Your task to perform on an android device: check android version Image 0: 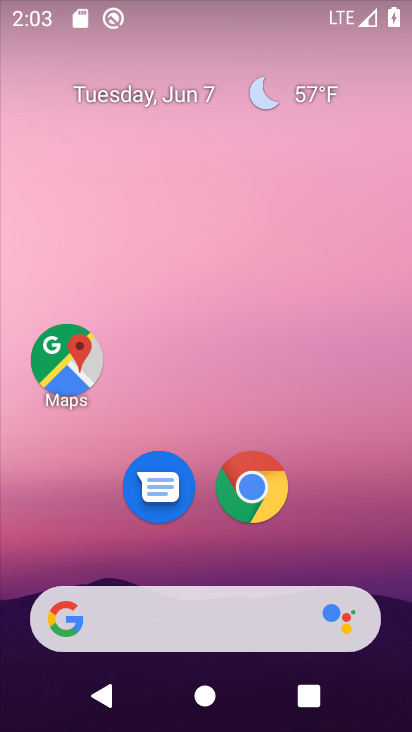
Step 0: drag from (196, 578) to (205, 0)
Your task to perform on an android device: check android version Image 1: 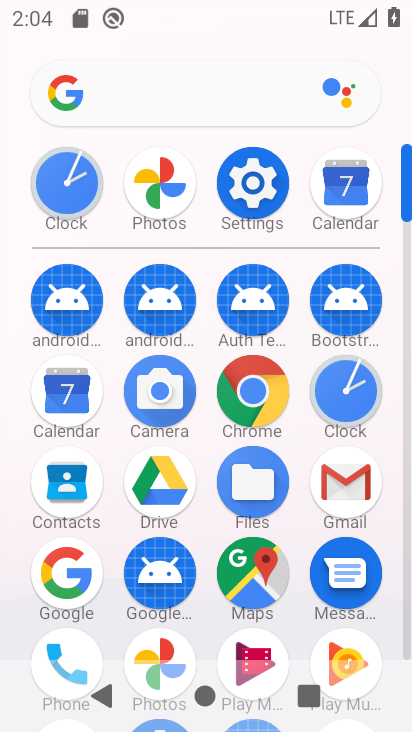
Step 1: click (246, 184)
Your task to perform on an android device: check android version Image 2: 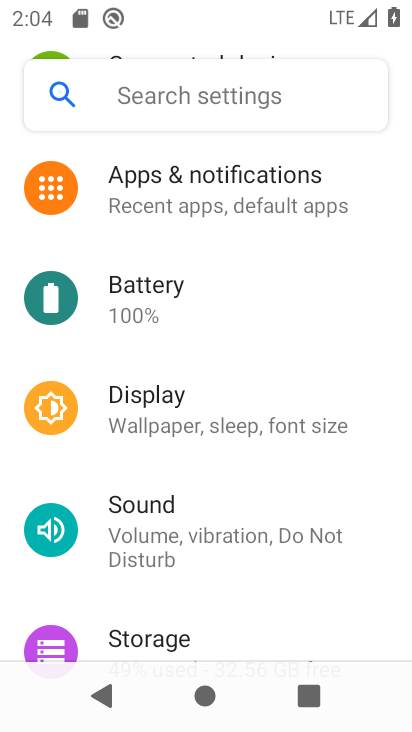
Step 2: drag from (142, 541) to (158, 47)
Your task to perform on an android device: check android version Image 3: 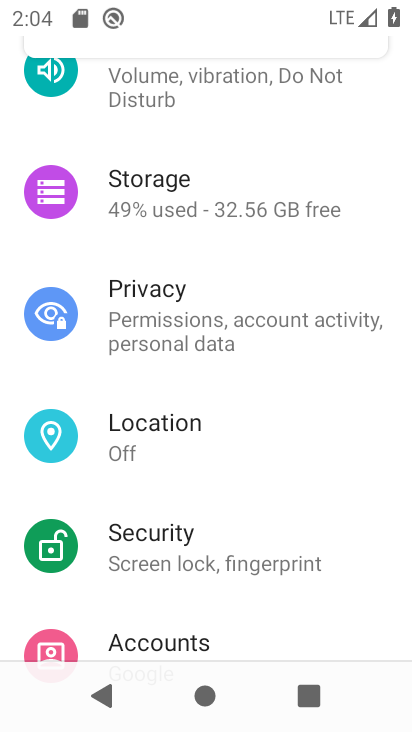
Step 3: drag from (210, 550) to (189, 27)
Your task to perform on an android device: check android version Image 4: 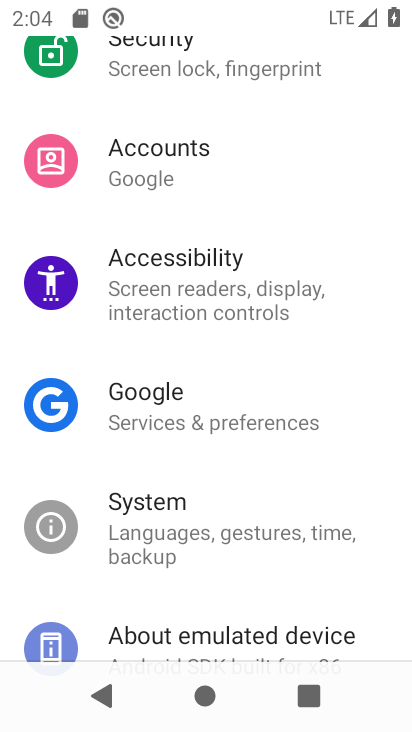
Step 4: click (182, 631)
Your task to perform on an android device: check android version Image 5: 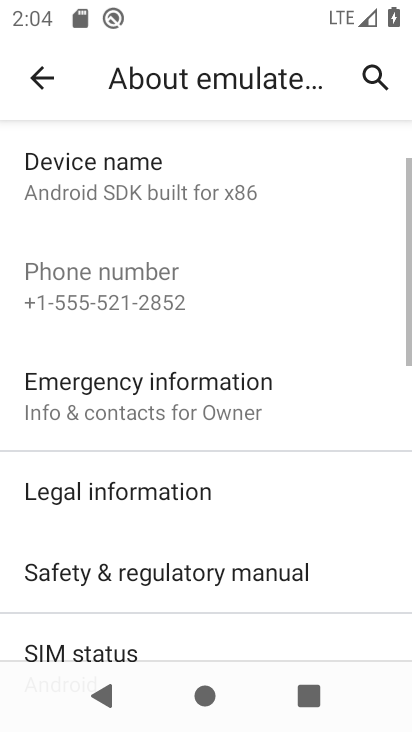
Step 5: drag from (132, 434) to (197, 0)
Your task to perform on an android device: check android version Image 6: 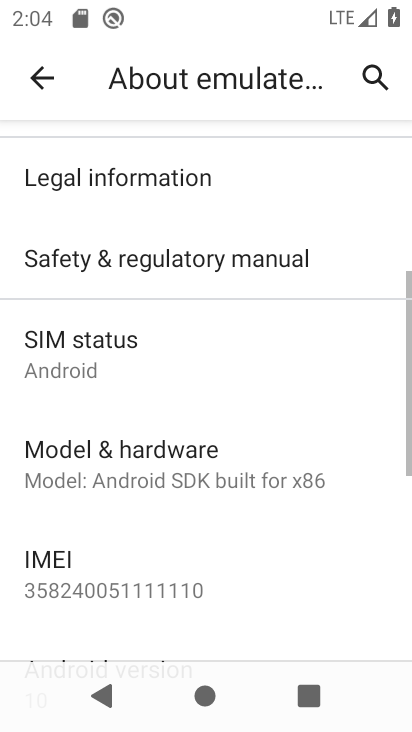
Step 6: drag from (123, 519) to (97, 136)
Your task to perform on an android device: check android version Image 7: 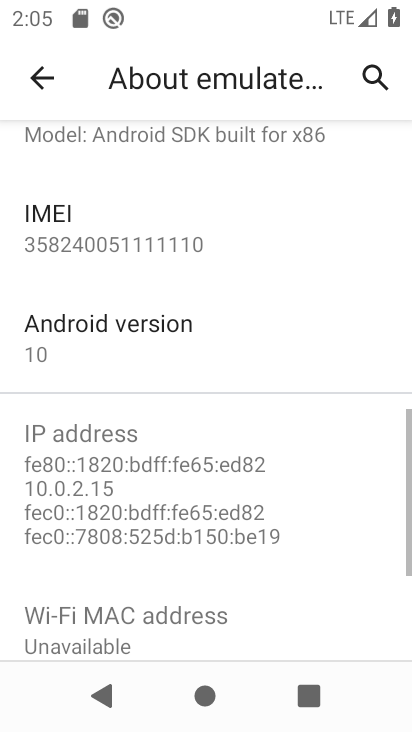
Step 7: drag from (221, 513) to (212, 345)
Your task to perform on an android device: check android version Image 8: 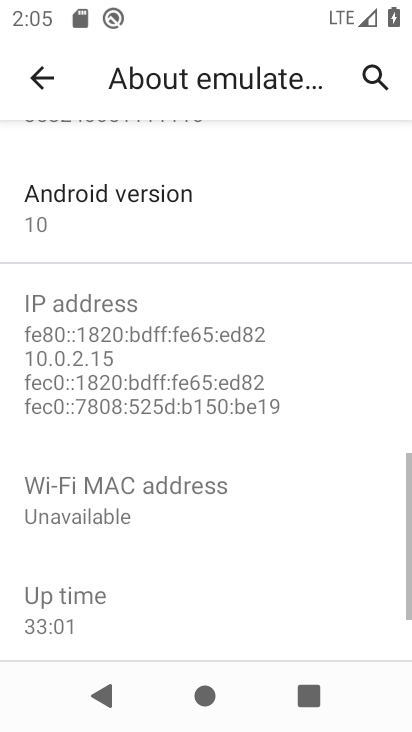
Step 8: click (99, 237)
Your task to perform on an android device: check android version Image 9: 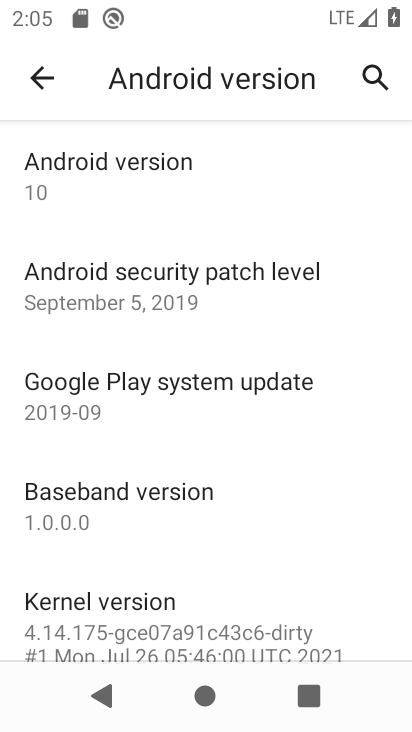
Step 9: task complete